Your task to perform on an android device: Go to Reddit.com Image 0: 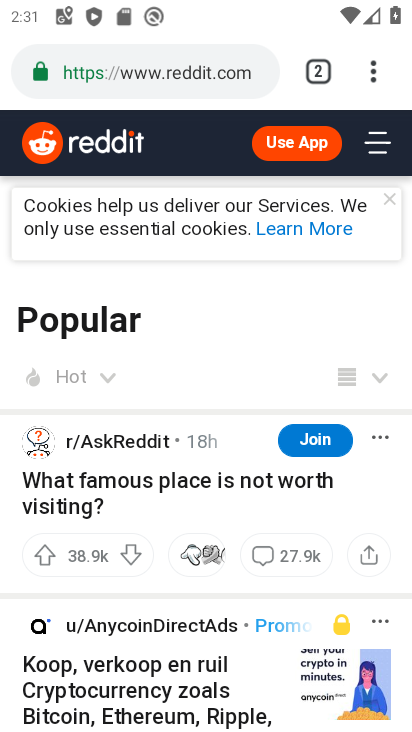
Step 0: press home button
Your task to perform on an android device: Go to Reddit.com Image 1: 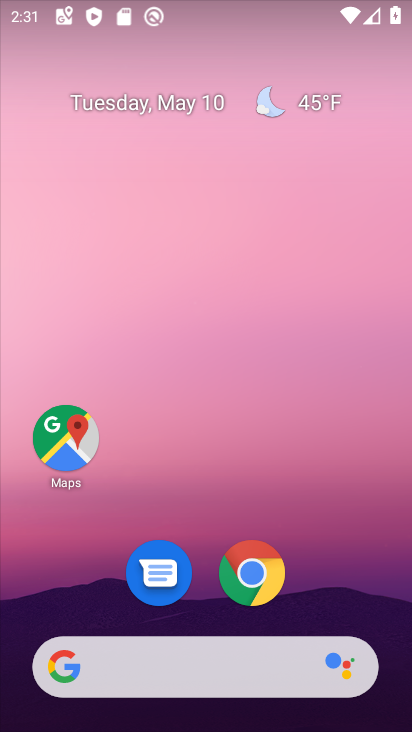
Step 1: click (248, 596)
Your task to perform on an android device: Go to Reddit.com Image 2: 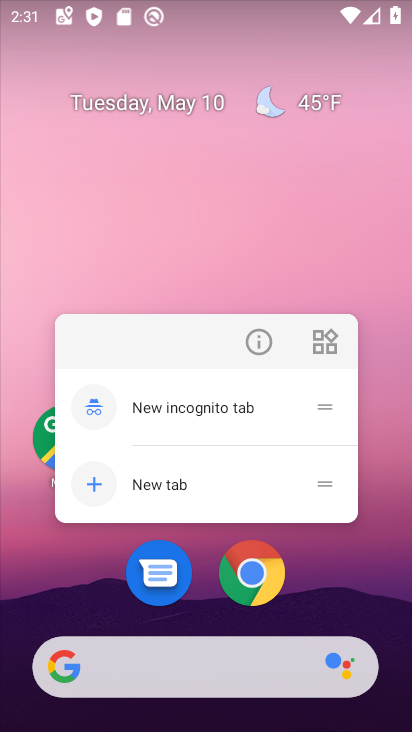
Step 2: click (237, 561)
Your task to perform on an android device: Go to Reddit.com Image 3: 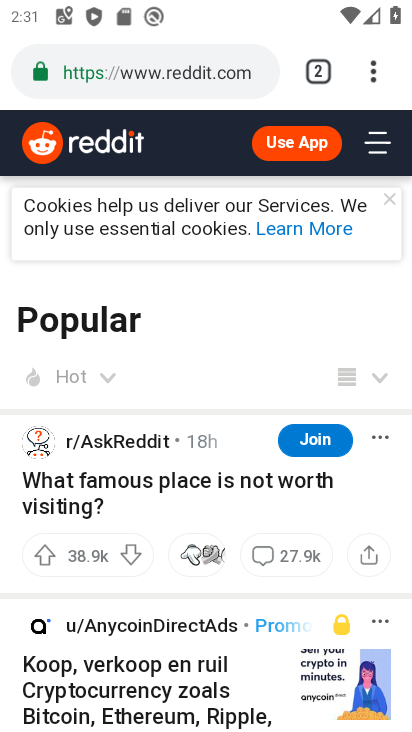
Step 3: click (306, 75)
Your task to perform on an android device: Go to Reddit.com Image 4: 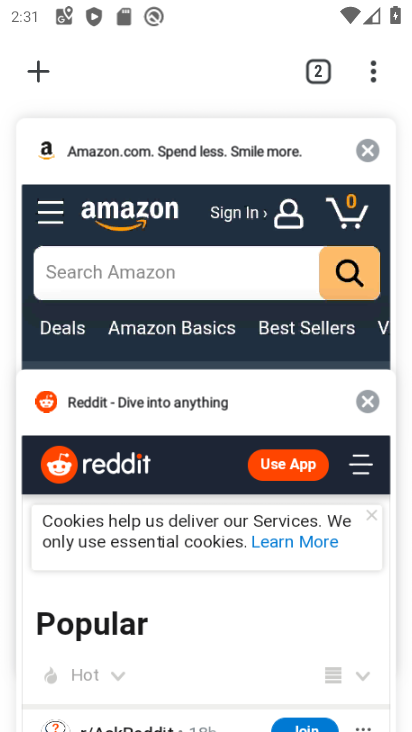
Step 4: click (128, 491)
Your task to perform on an android device: Go to Reddit.com Image 5: 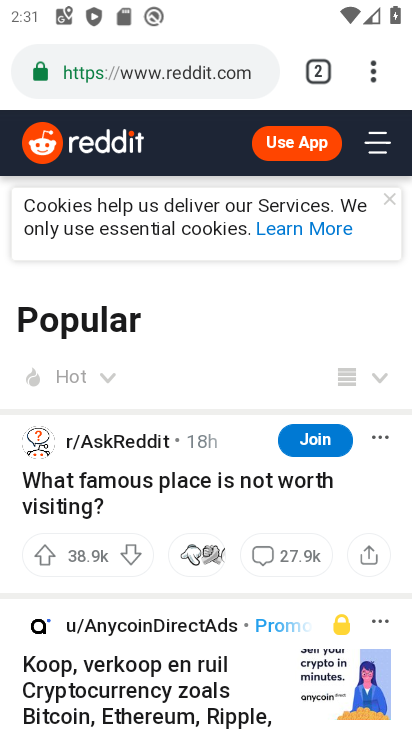
Step 5: task complete